Your task to perform on an android device: Go to battery settings Image 0: 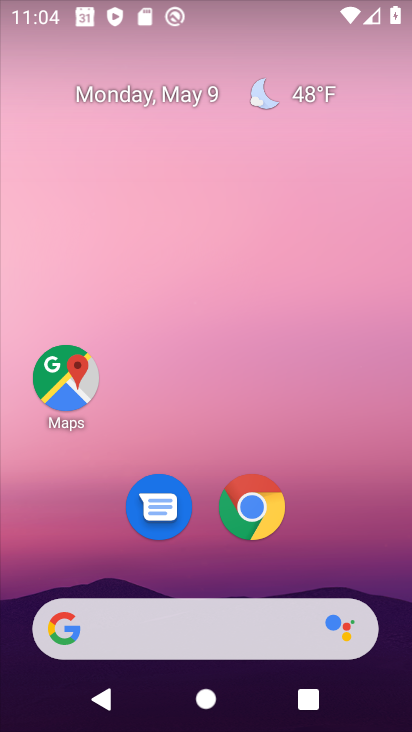
Step 0: drag from (294, 477) to (260, 137)
Your task to perform on an android device: Go to battery settings Image 1: 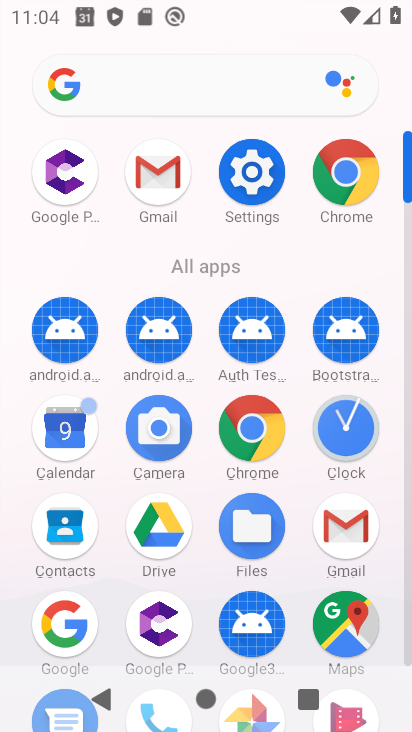
Step 1: click (266, 171)
Your task to perform on an android device: Go to battery settings Image 2: 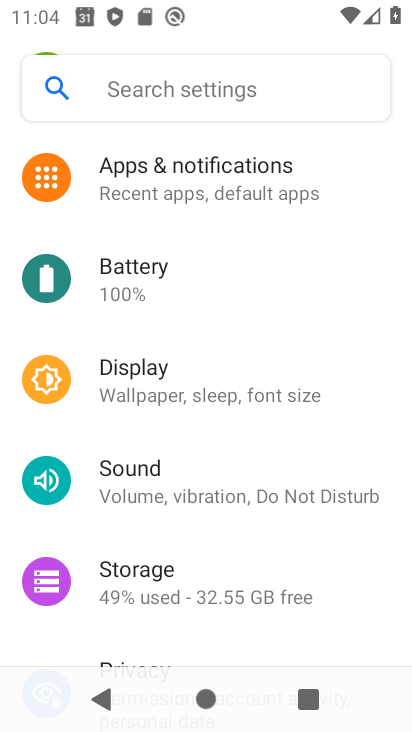
Step 2: click (193, 258)
Your task to perform on an android device: Go to battery settings Image 3: 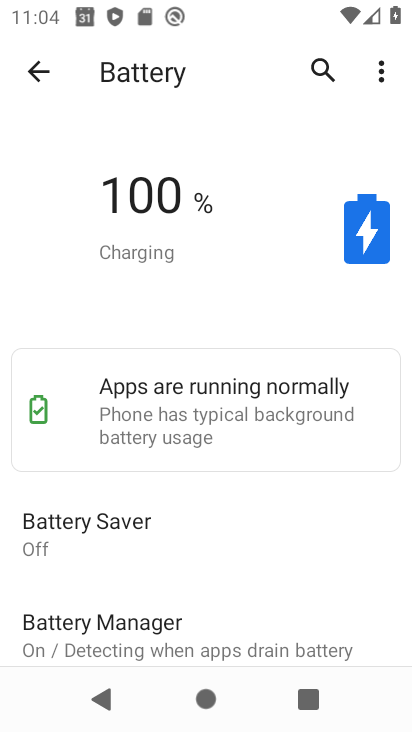
Step 3: task complete